Your task to perform on an android device: change timer sound Image 0: 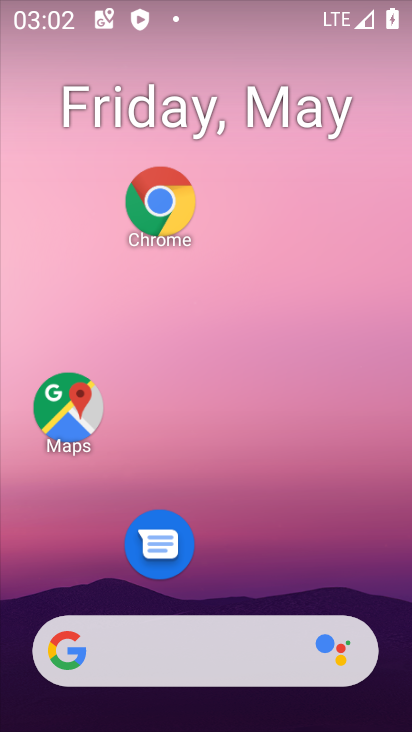
Step 0: drag from (311, 592) to (273, 280)
Your task to perform on an android device: change timer sound Image 1: 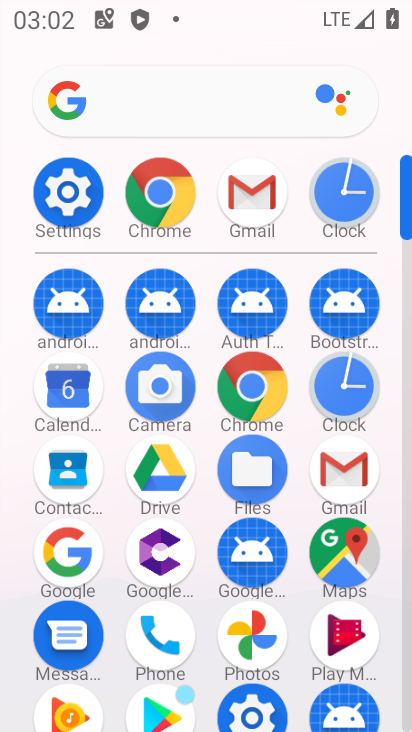
Step 1: click (349, 404)
Your task to perform on an android device: change timer sound Image 2: 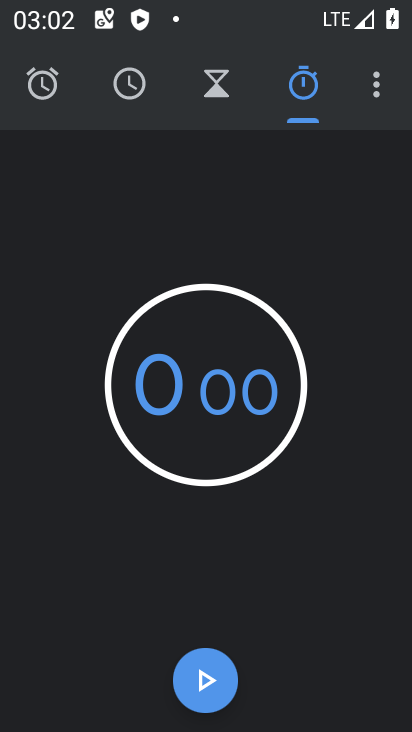
Step 2: click (378, 93)
Your task to perform on an android device: change timer sound Image 3: 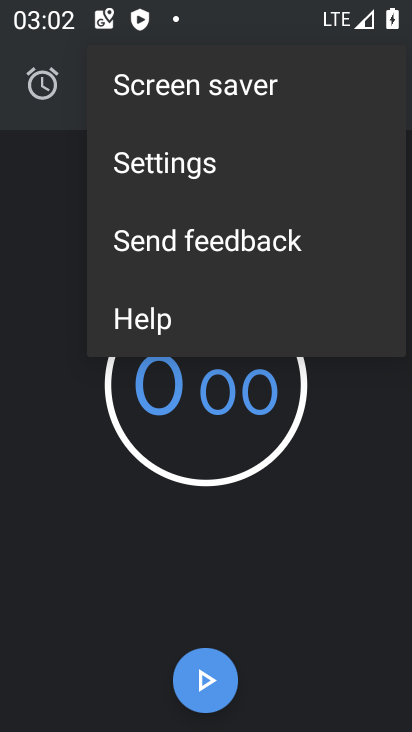
Step 3: click (231, 168)
Your task to perform on an android device: change timer sound Image 4: 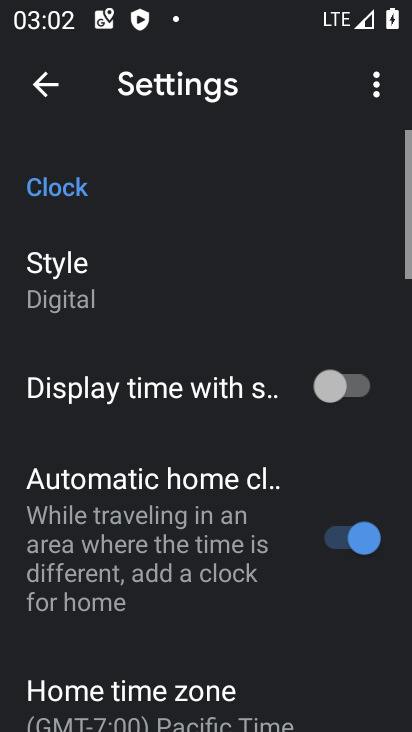
Step 4: drag from (201, 528) to (209, 212)
Your task to perform on an android device: change timer sound Image 5: 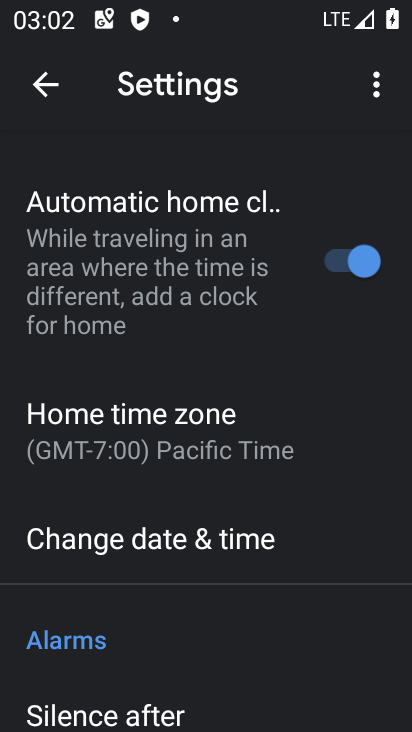
Step 5: drag from (204, 597) to (195, 318)
Your task to perform on an android device: change timer sound Image 6: 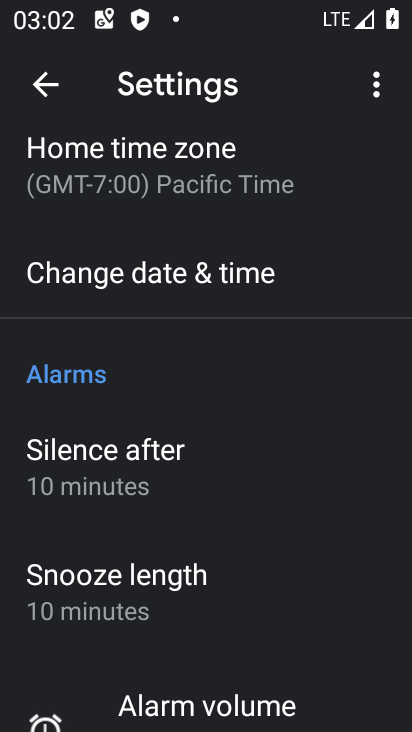
Step 6: drag from (196, 593) to (186, 355)
Your task to perform on an android device: change timer sound Image 7: 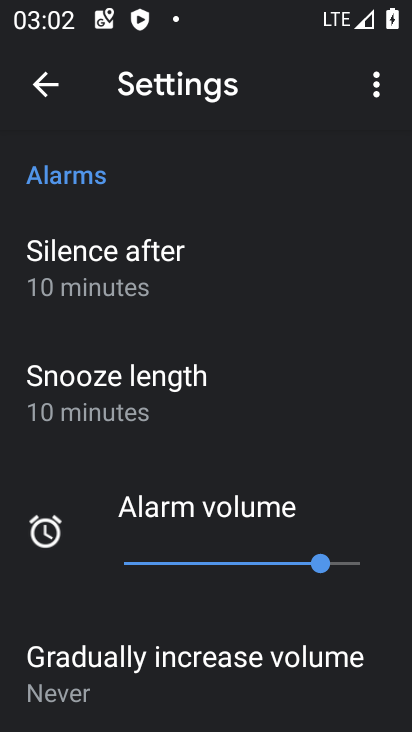
Step 7: drag from (179, 601) to (195, 242)
Your task to perform on an android device: change timer sound Image 8: 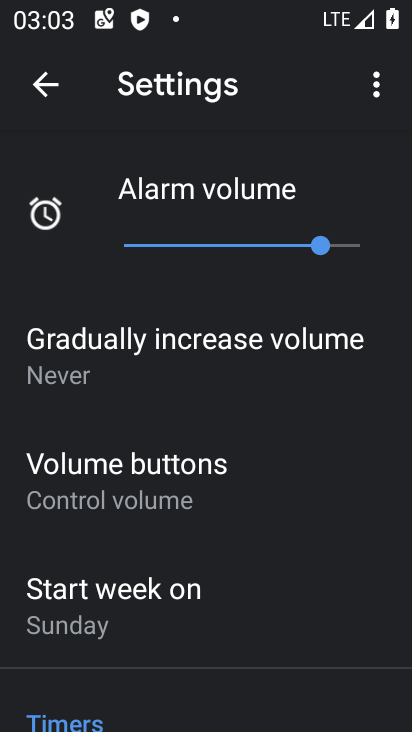
Step 8: drag from (206, 641) to (236, 343)
Your task to perform on an android device: change timer sound Image 9: 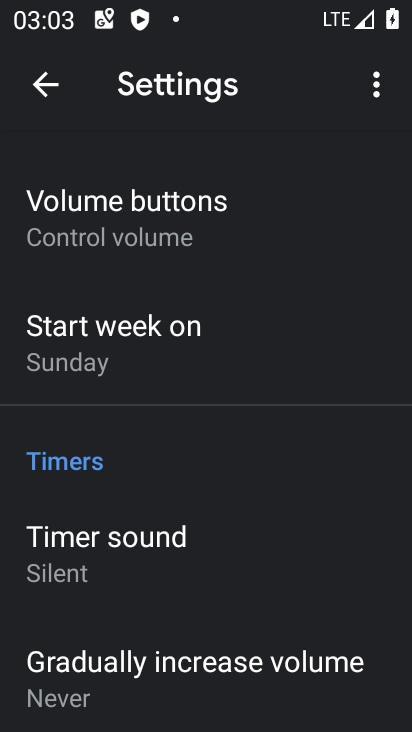
Step 9: click (193, 567)
Your task to perform on an android device: change timer sound Image 10: 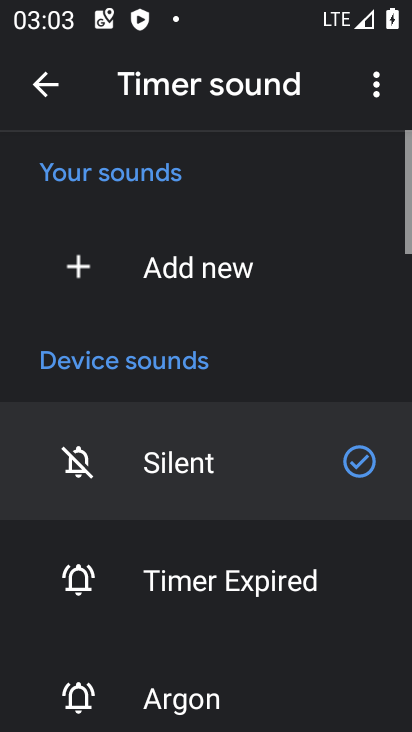
Step 10: click (219, 627)
Your task to perform on an android device: change timer sound Image 11: 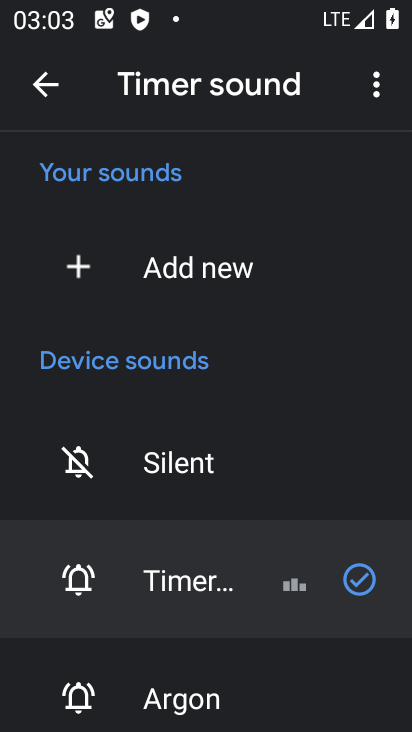
Step 11: task complete